Your task to perform on an android device: make emails show in primary in the gmail app Image 0: 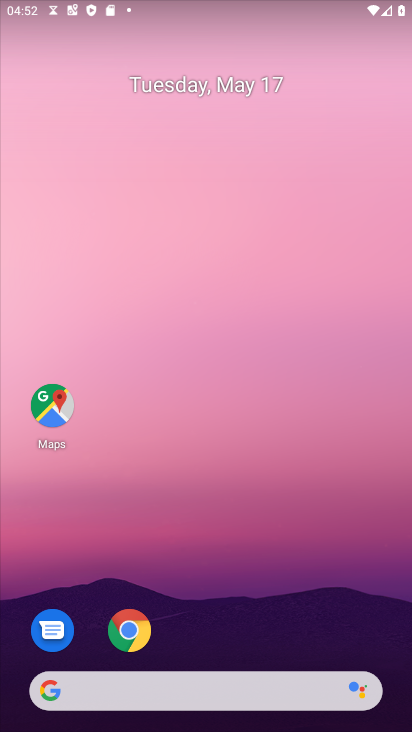
Step 0: drag from (241, 616) to (238, 104)
Your task to perform on an android device: make emails show in primary in the gmail app Image 1: 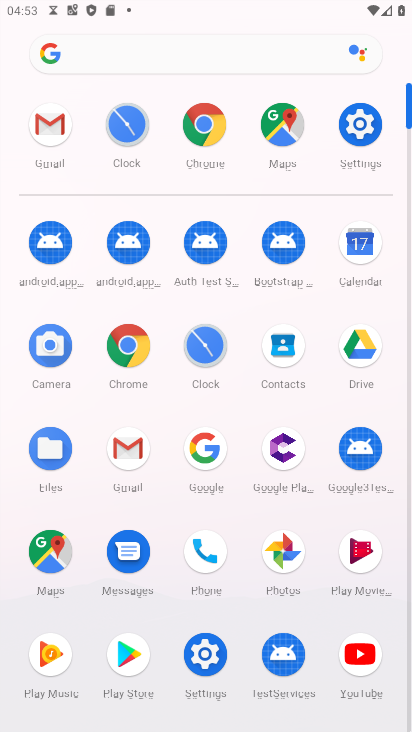
Step 1: click (33, 125)
Your task to perform on an android device: make emails show in primary in the gmail app Image 2: 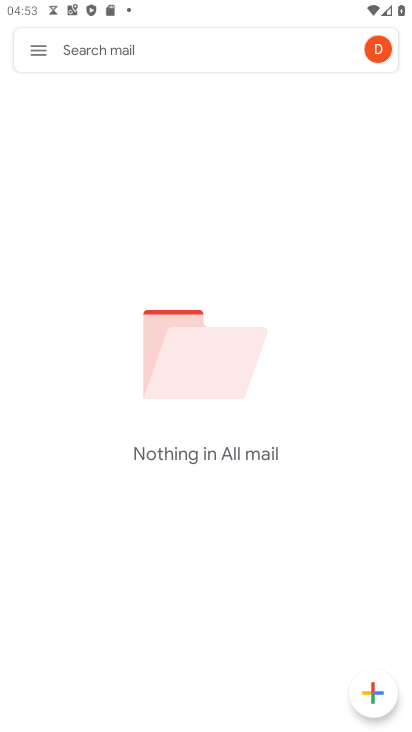
Step 2: click (36, 43)
Your task to perform on an android device: make emails show in primary in the gmail app Image 3: 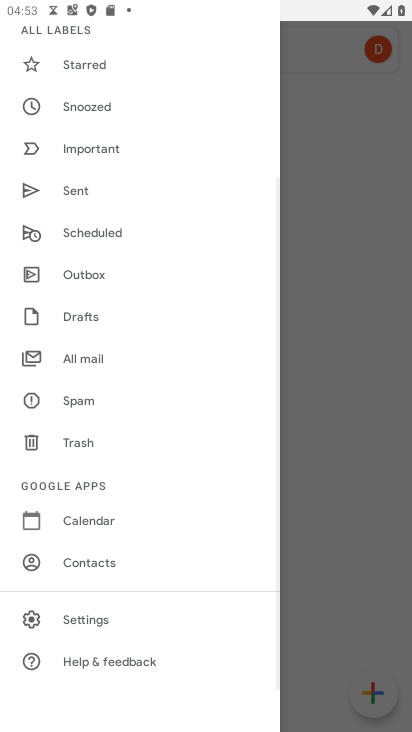
Step 3: drag from (84, 70) to (115, 369)
Your task to perform on an android device: make emails show in primary in the gmail app Image 4: 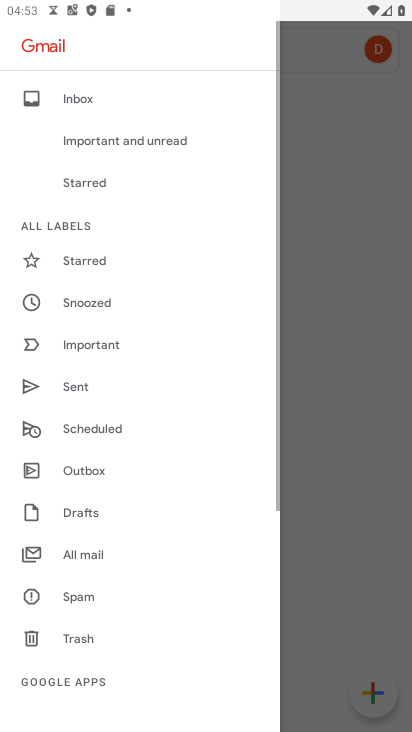
Step 4: click (66, 100)
Your task to perform on an android device: make emails show in primary in the gmail app Image 5: 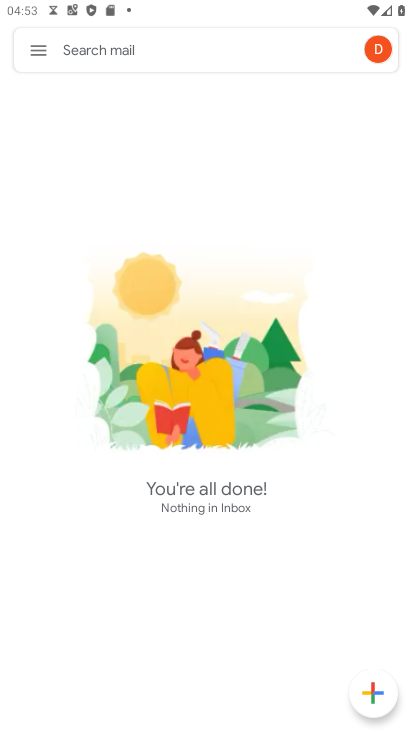
Step 5: task complete